Your task to perform on an android device: open the mobile data screen to see how much data has been used Image 0: 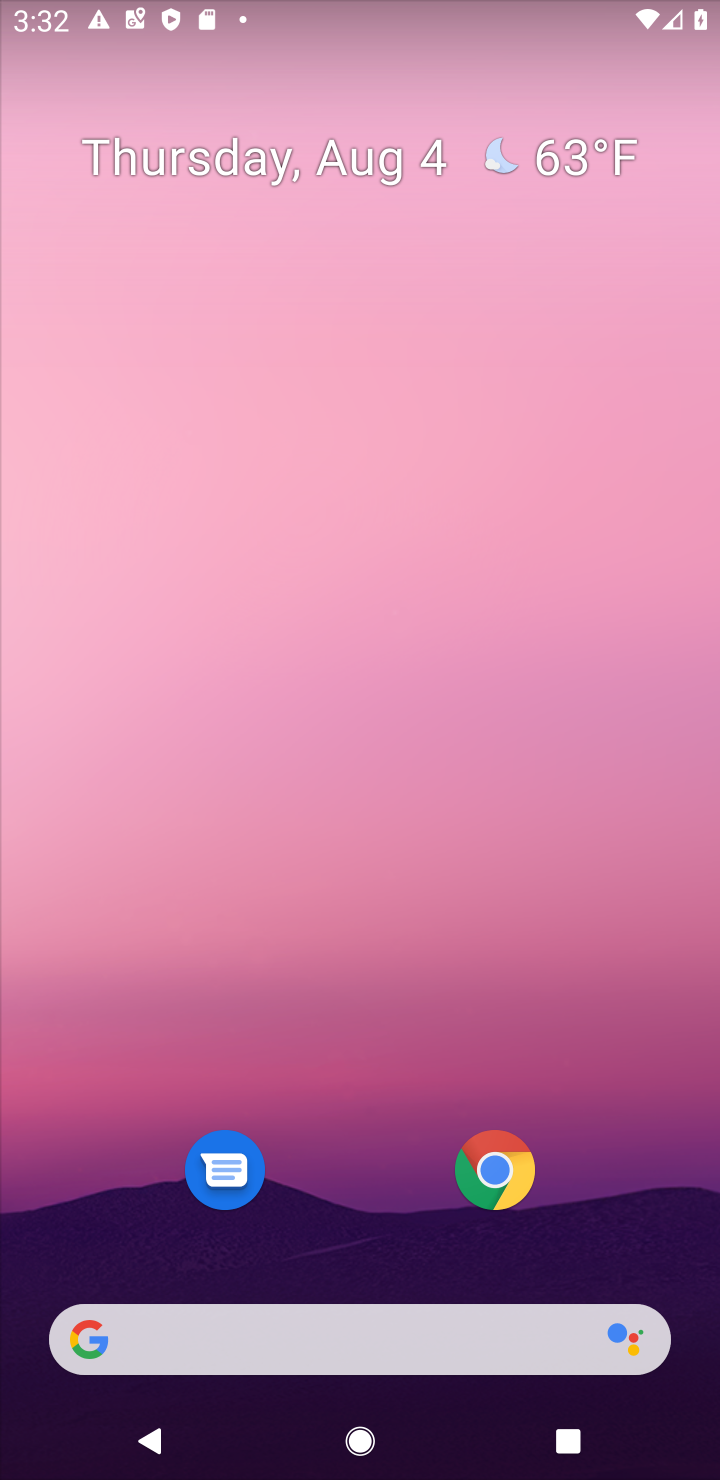
Step 0: drag from (643, 1084) to (579, 299)
Your task to perform on an android device: open the mobile data screen to see how much data has been used Image 1: 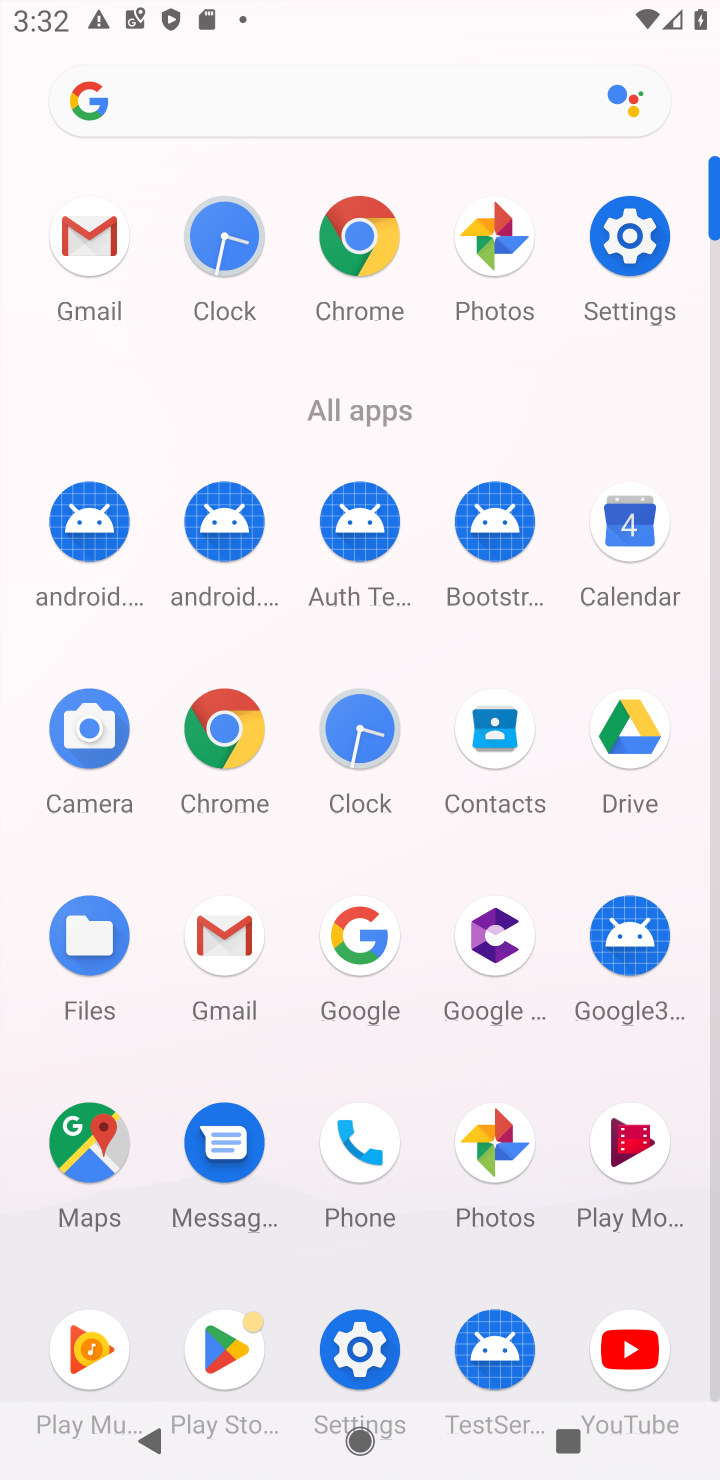
Step 1: click (359, 1346)
Your task to perform on an android device: open the mobile data screen to see how much data has been used Image 2: 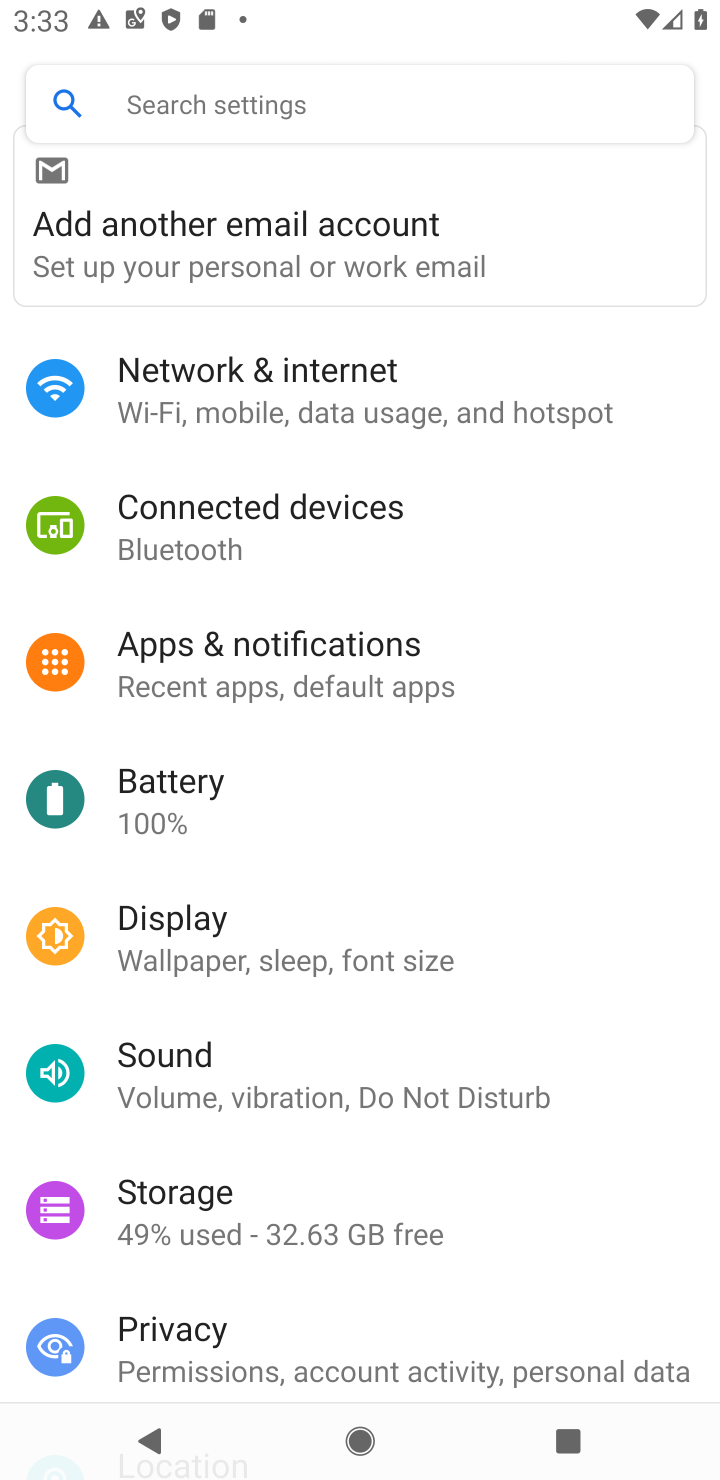
Step 2: click (220, 365)
Your task to perform on an android device: open the mobile data screen to see how much data has been used Image 3: 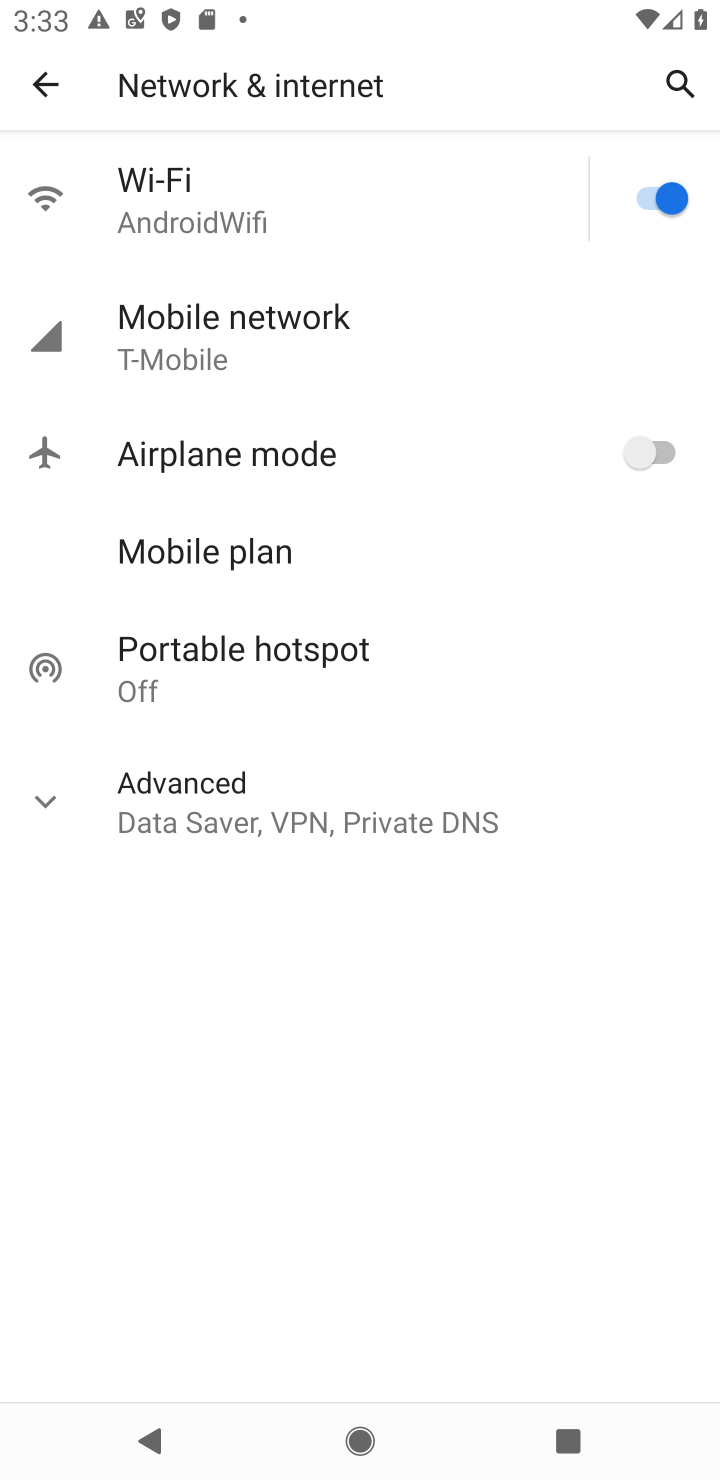
Step 3: click (220, 365)
Your task to perform on an android device: open the mobile data screen to see how much data has been used Image 4: 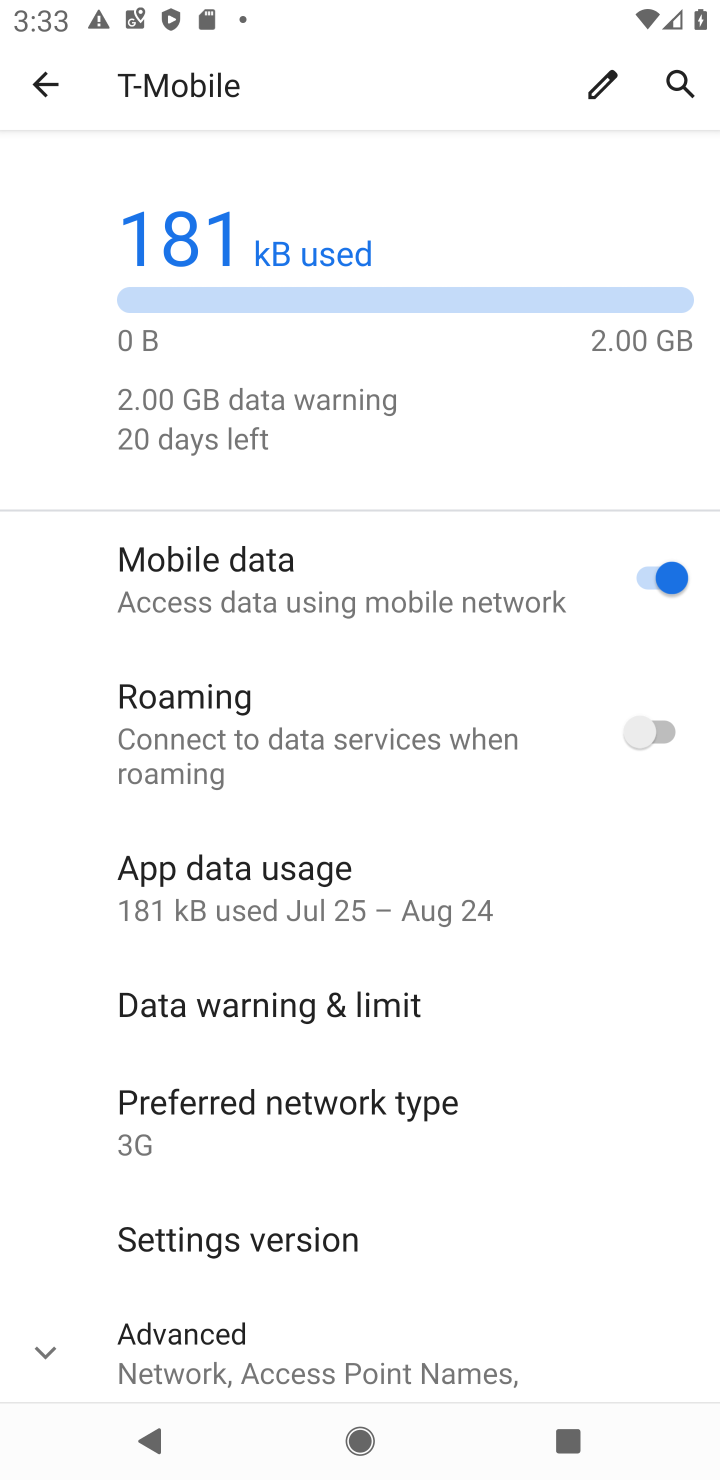
Step 4: task complete